Your task to perform on an android device: Search for razer huntsman on target, select the first entry, and add it to the cart. Image 0: 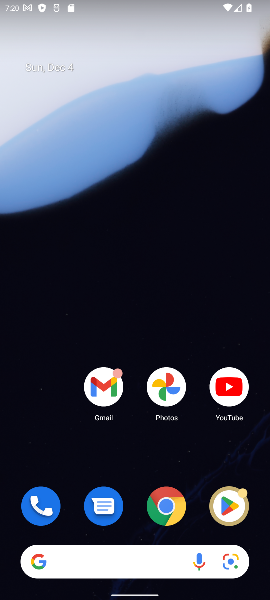
Step 0: click (158, 495)
Your task to perform on an android device: Search for razer huntsman on target, select the first entry, and add it to the cart. Image 1: 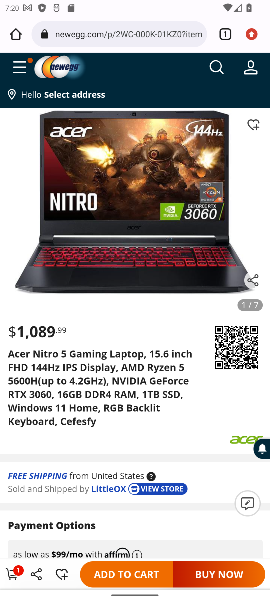
Step 1: click (128, 31)
Your task to perform on an android device: Search for razer huntsman on target, select the first entry, and add it to the cart. Image 2: 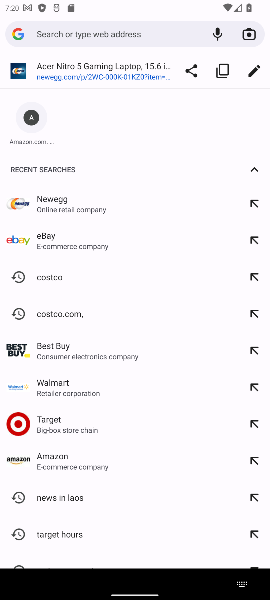
Step 2: click (36, 416)
Your task to perform on an android device: Search for razer huntsman on target, select the first entry, and add it to the cart. Image 3: 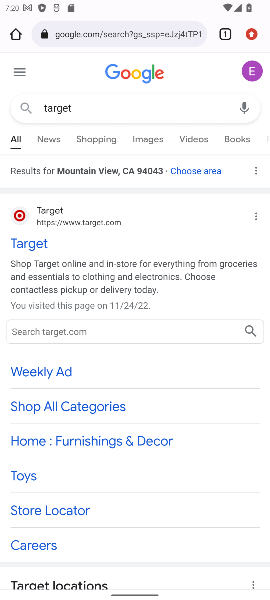
Step 3: click (20, 238)
Your task to perform on an android device: Search for razer huntsman on target, select the first entry, and add it to the cart. Image 4: 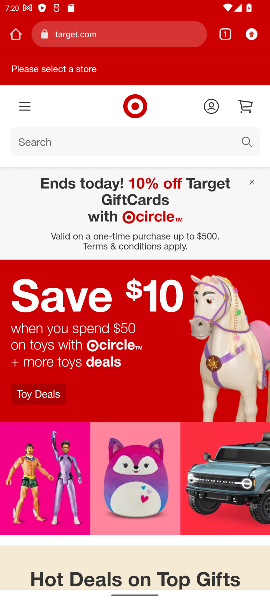
Step 4: click (56, 139)
Your task to perform on an android device: Search for razer huntsman on target, select the first entry, and add it to the cart. Image 5: 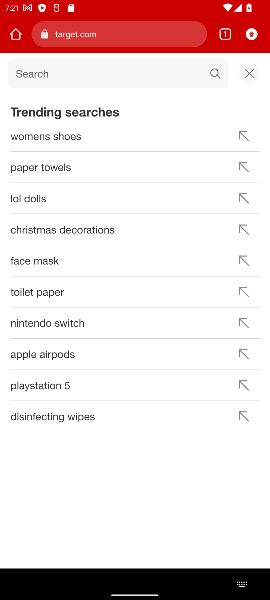
Step 5: type "razer huntsman"
Your task to perform on an android device: Search for razer huntsman on target, select the first entry, and add it to the cart. Image 6: 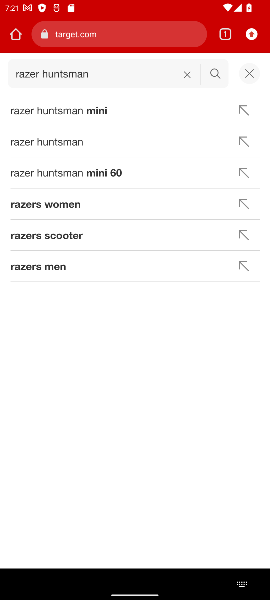
Step 6: click (214, 75)
Your task to perform on an android device: Search for razer huntsman on target, select the first entry, and add it to the cart. Image 7: 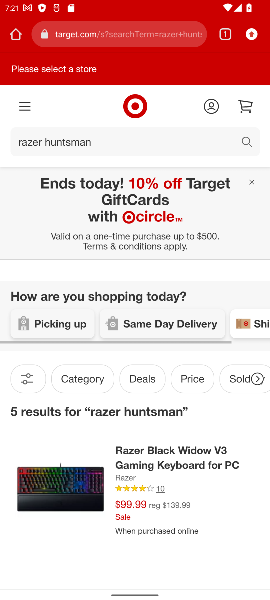
Step 7: drag from (206, 475) to (203, 200)
Your task to perform on an android device: Search for razer huntsman on target, select the first entry, and add it to the cart. Image 8: 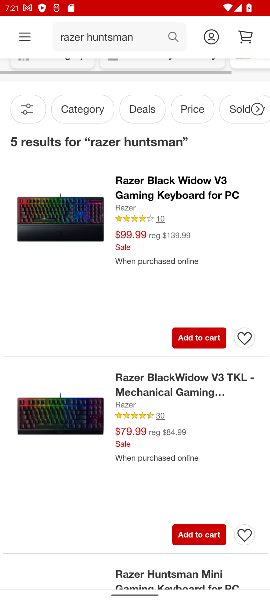
Step 8: drag from (205, 138) to (201, 416)
Your task to perform on an android device: Search for razer huntsman on target, select the first entry, and add it to the cart. Image 9: 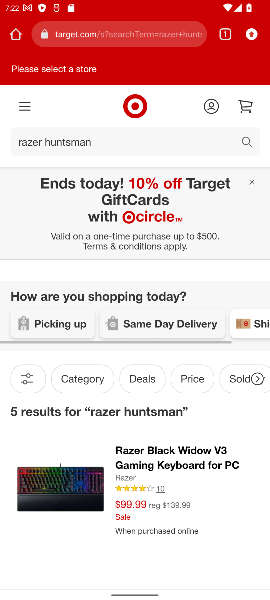
Step 9: drag from (206, 498) to (173, 154)
Your task to perform on an android device: Search for razer huntsman on target, select the first entry, and add it to the cart. Image 10: 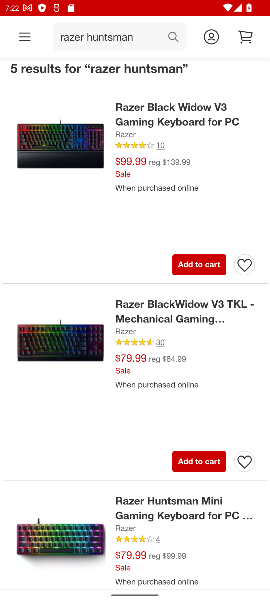
Step 10: drag from (190, 538) to (181, 202)
Your task to perform on an android device: Search for razer huntsman on target, select the first entry, and add it to the cart. Image 11: 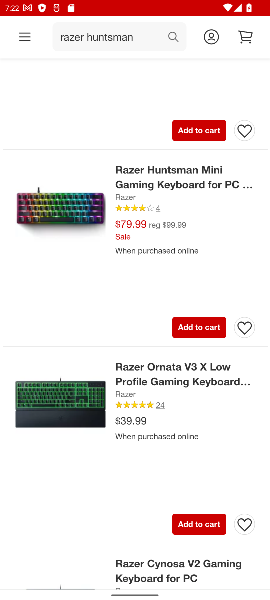
Step 11: click (191, 331)
Your task to perform on an android device: Search for razer huntsman on target, select the first entry, and add it to the cart. Image 12: 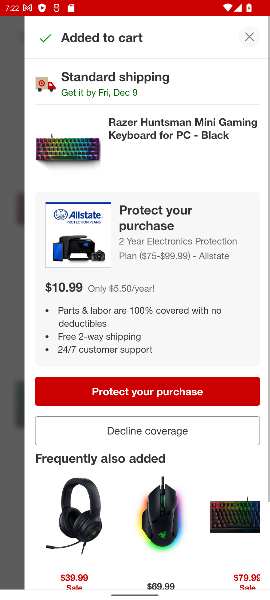
Step 12: task complete